Your task to perform on an android device: Go to Android settings Image 0: 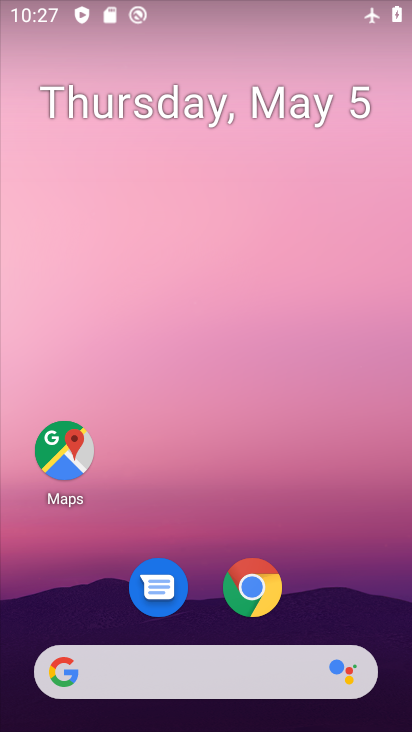
Step 0: drag from (387, 539) to (361, 0)
Your task to perform on an android device: Go to Android settings Image 1: 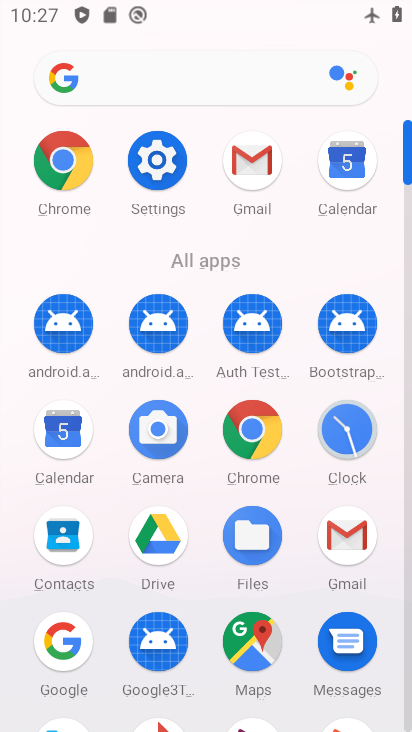
Step 1: click (156, 154)
Your task to perform on an android device: Go to Android settings Image 2: 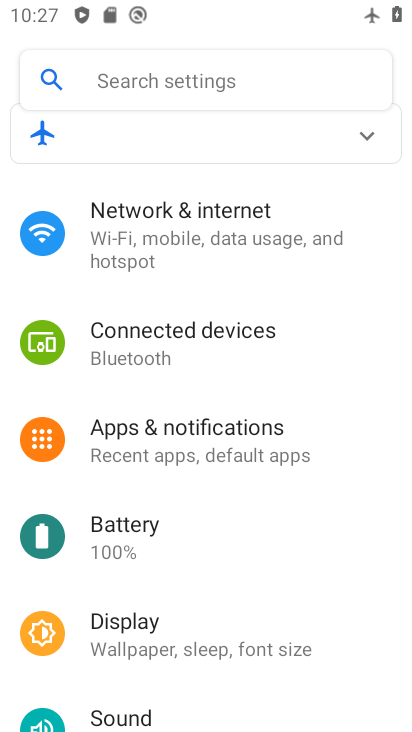
Step 2: task complete